Your task to perform on an android device: all mails in gmail Image 0: 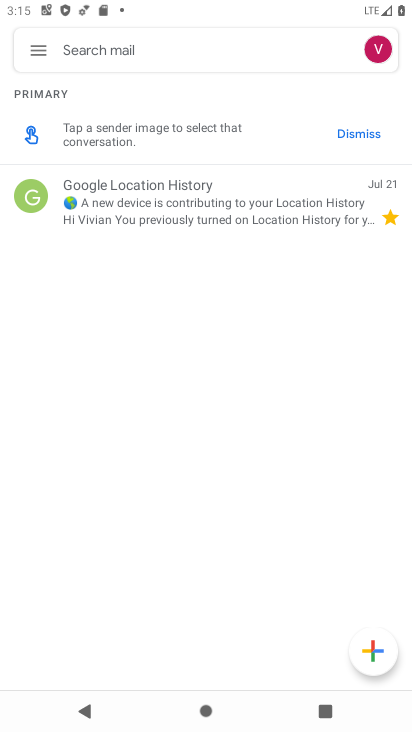
Step 0: press home button
Your task to perform on an android device: all mails in gmail Image 1: 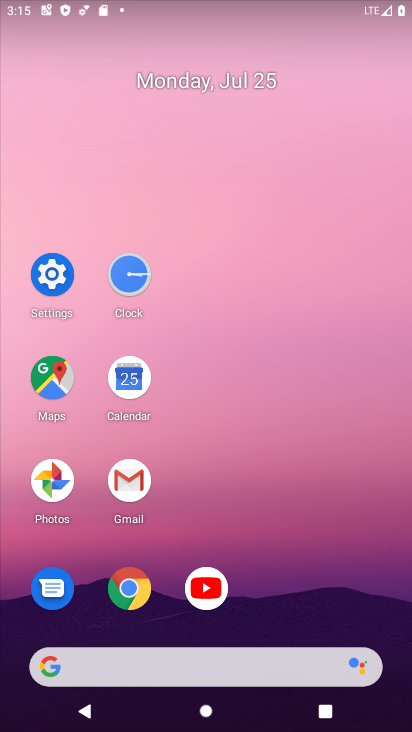
Step 1: click (128, 486)
Your task to perform on an android device: all mails in gmail Image 2: 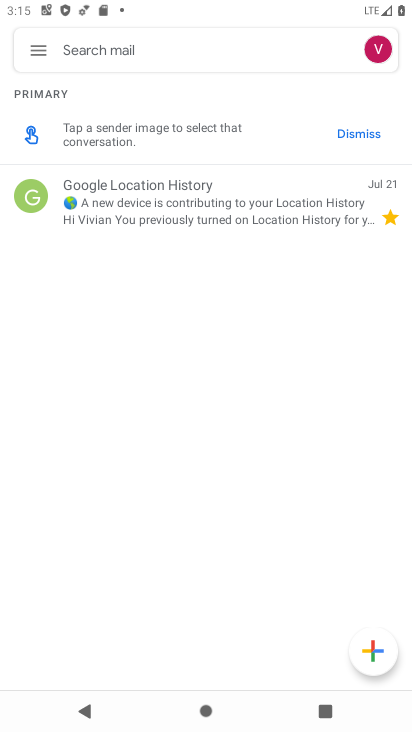
Step 2: click (31, 50)
Your task to perform on an android device: all mails in gmail Image 3: 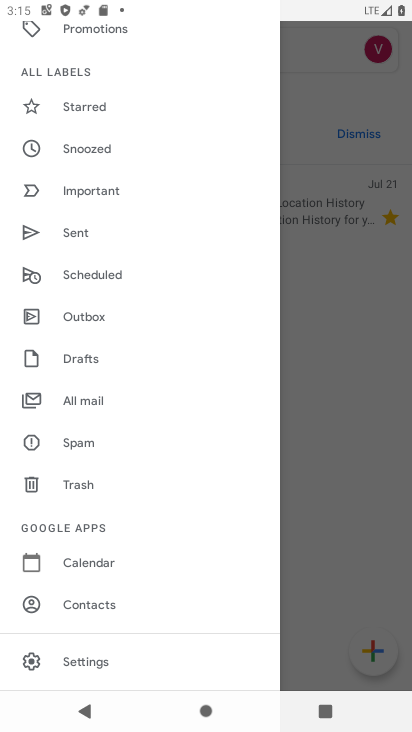
Step 3: click (75, 410)
Your task to perform on an android device: all mails in gmail Image 4: 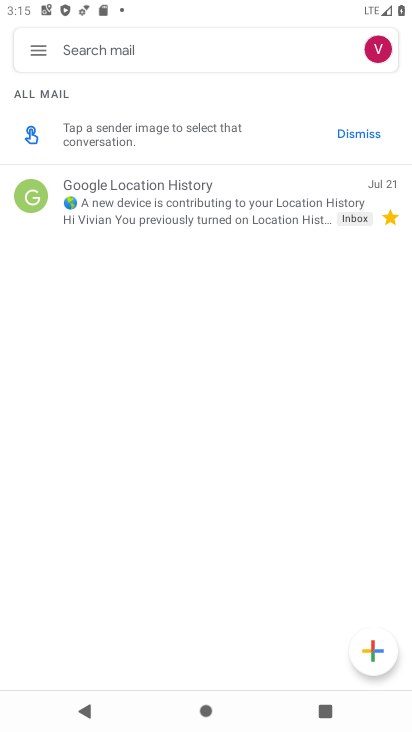
Step 4: task complete